Your task to perform on an android device: What's the price of the Sony TV? Image 0: 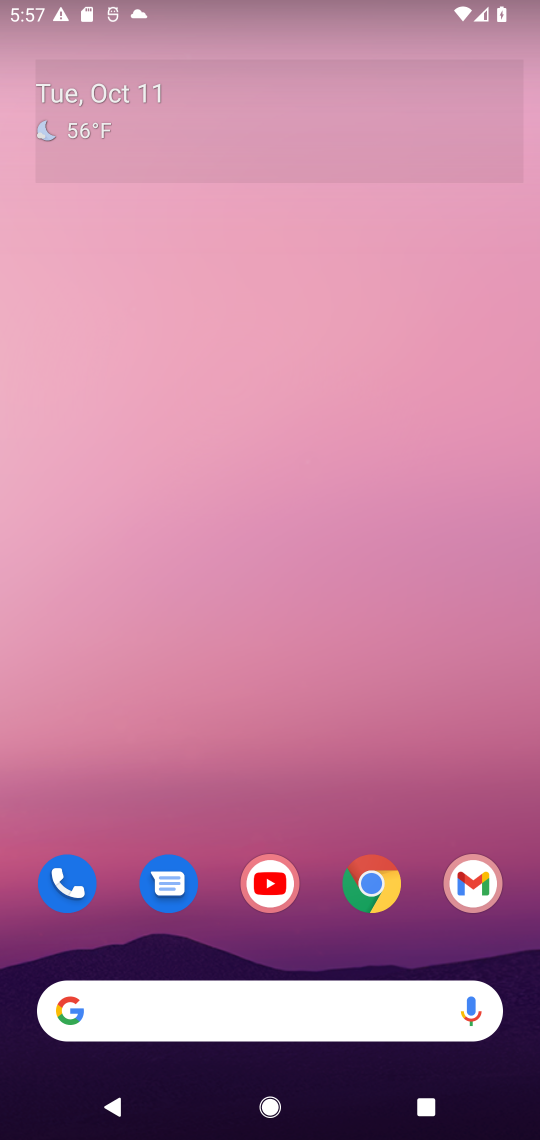
Step 0: drag from (296, 964) to (330, 187)
Your task to perform on an android device: What's the price of the Sony TV? Image 1: 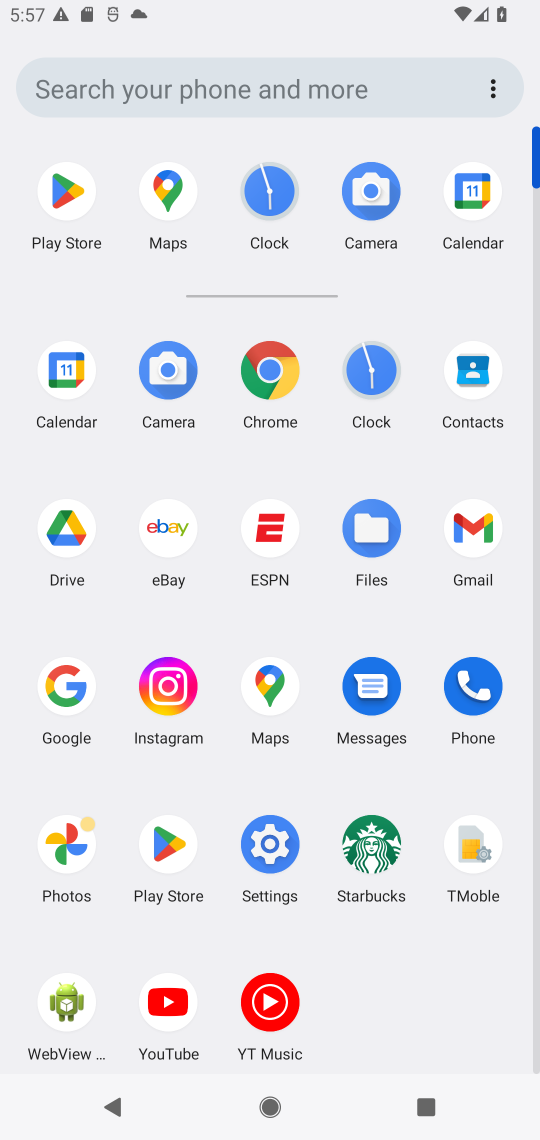
Step 1: click (271, 361)
Your task to perform on an android device: What's the price of the Sony TV? Image 2: 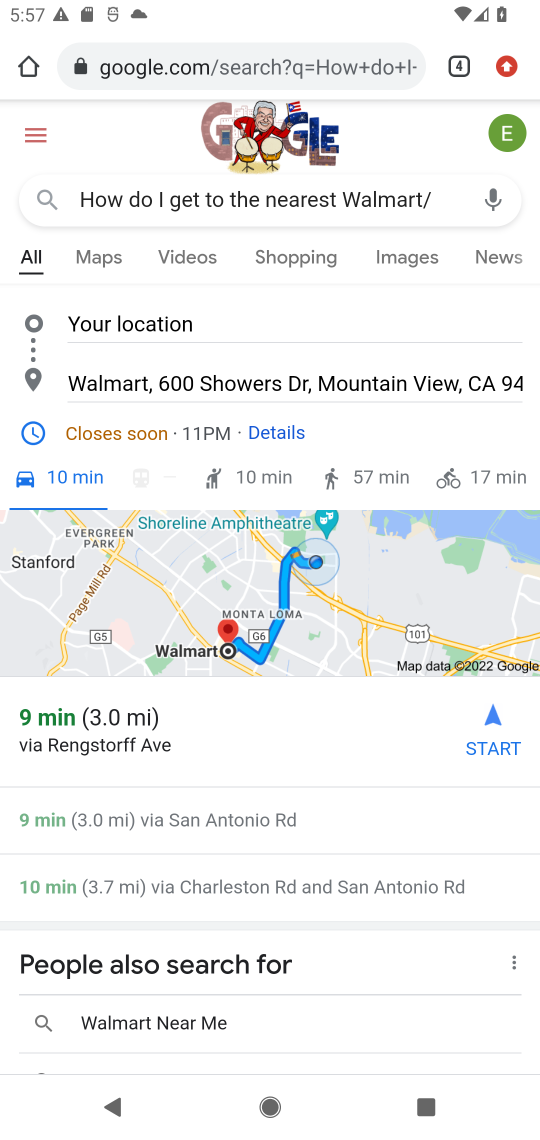
Step 2: click (330, 66)
Your task to perform on an android device: What's the price of the Sony TV? Image 3: 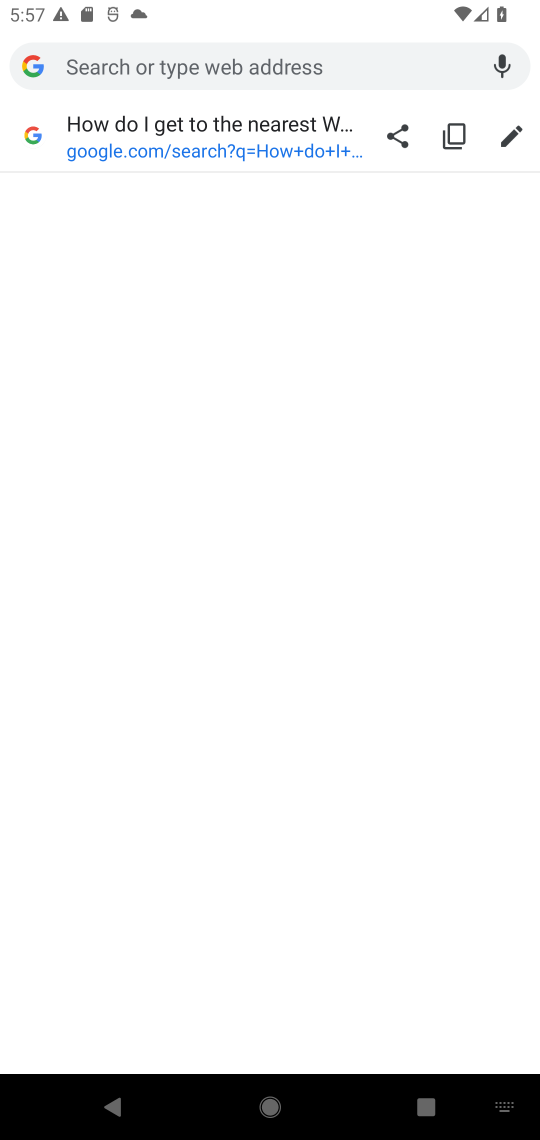
Step 3: type "What's the price of the Sony TV?"
Your task to perform on an android device: What's the price of the Sony TV? Image 4: 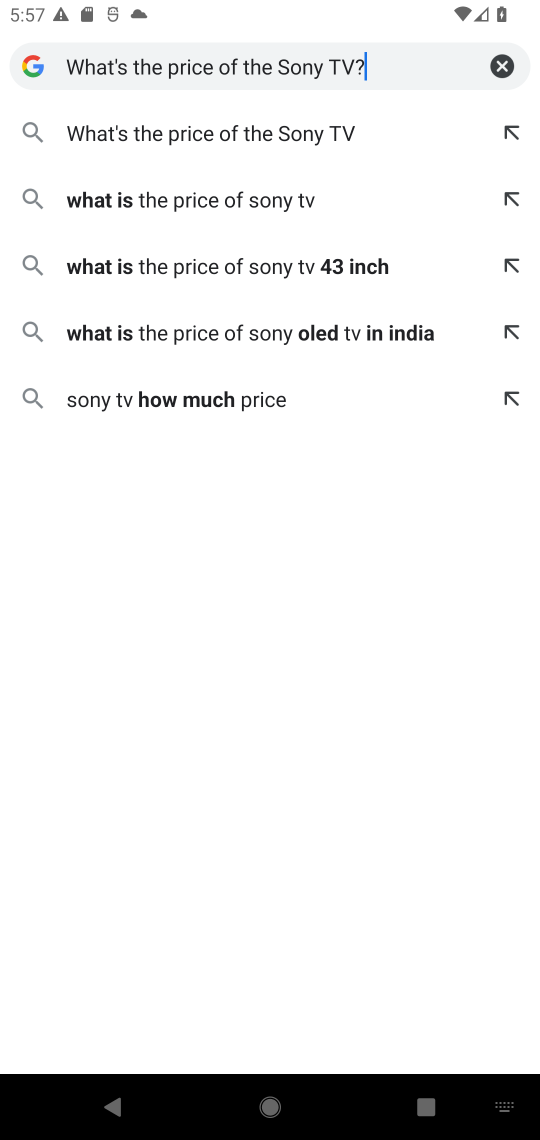
Step 4: press enter
Your task to perform on an android device: What's the price of the Sony TV? Image 5: 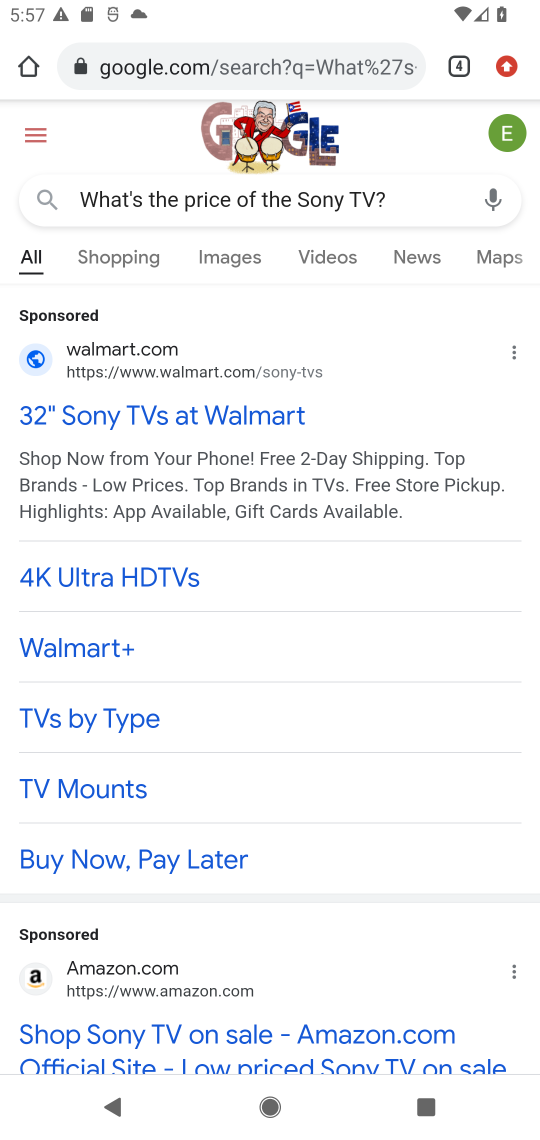
Step 5: drag from (371, 743) to (352, 354)
Your task to perform on an android device: What's the price of the Sony TV? Image 6: 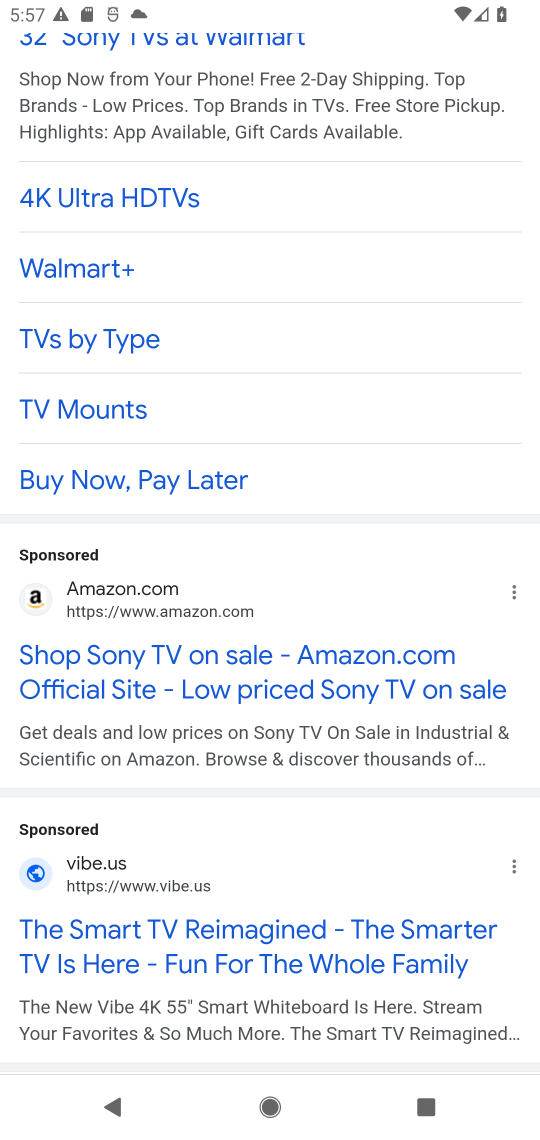
Step 6: click (265, 655)
Your task to perform on an android device: What's the price of the Sony TV? Image 7: 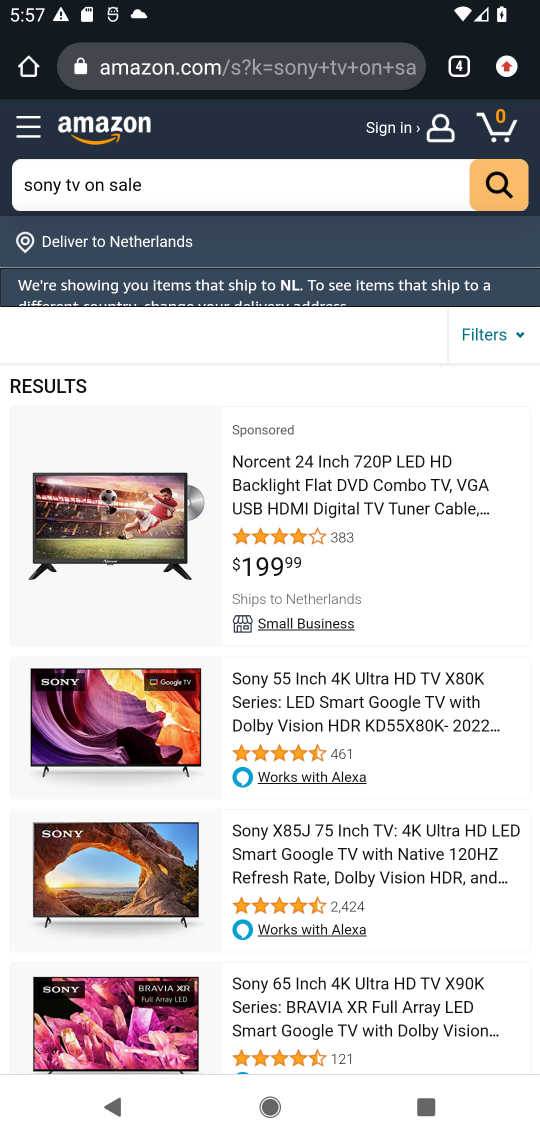
Step 7: task complete